Your task to perform on an android device: What's the weather going to be tomorrow? Image 0: 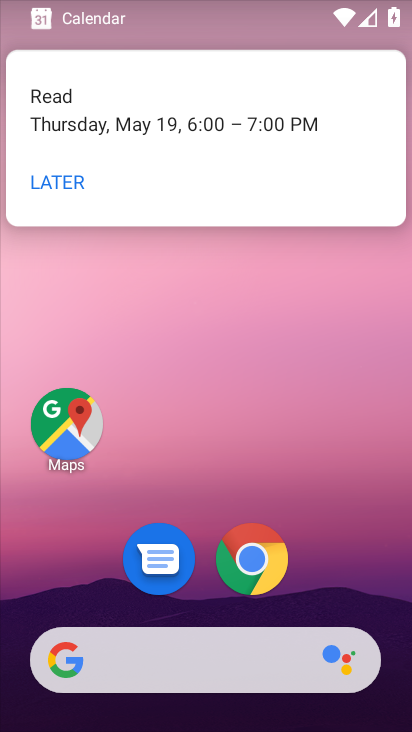
Step 0: drag from (348, 514) to (351, 175)
Your task to perform on an android device: What's the weather going to be tomorrow? Image 1: 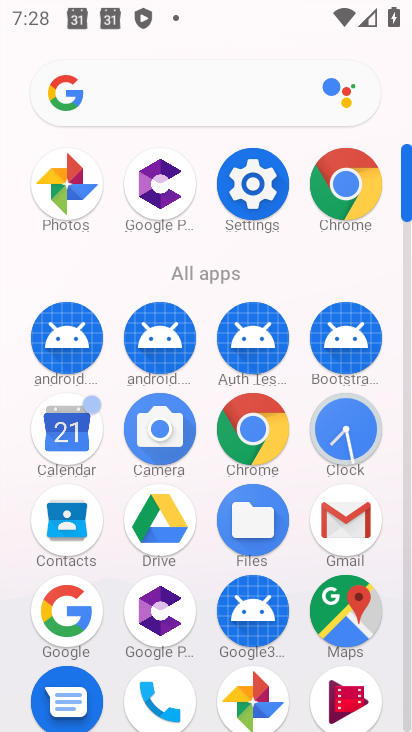
Step 1: drag from (303, 556) to (329, 313)
Your task to perform on an android device: What's the weather going to be tomorrow? Image 2: 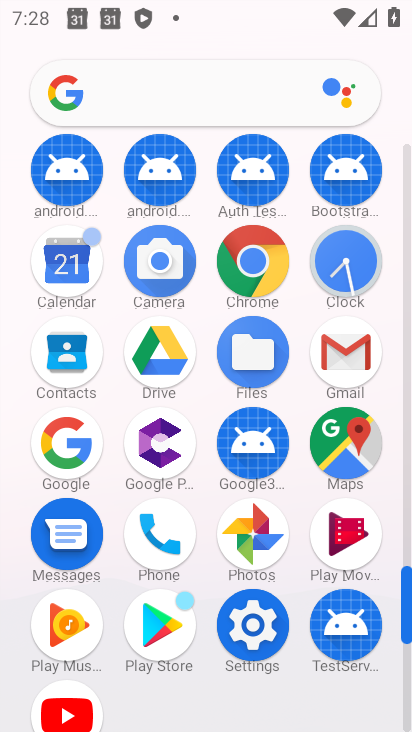
Step 2: click (271, 276)
Your task to perform on an android device: What's the weather going to be tomorrow? Image 3: 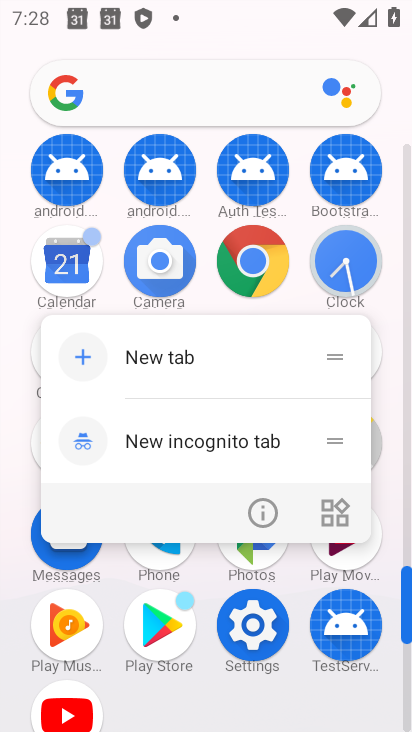
Step 3: click (271, 286)
Your task to perform on an android device: What's the weather going to be tomorrow? Image 4: 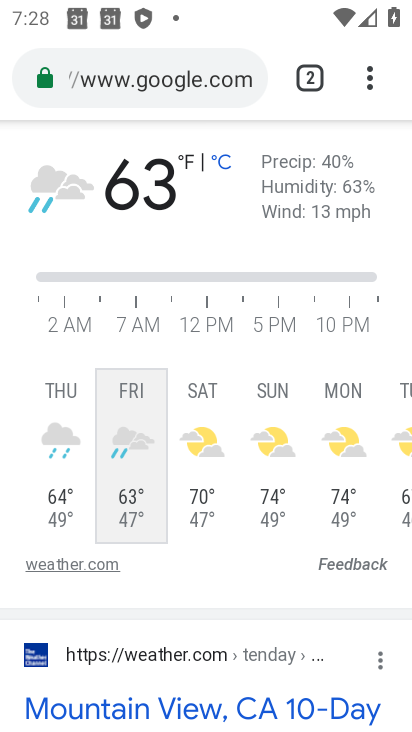
Step 4: task complete